Your task to perform on an android device: open chrome privacy settings Image 0: 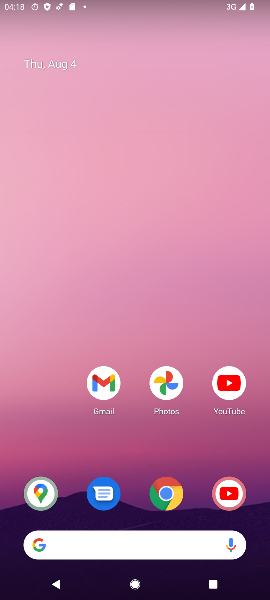
Step 0: click (165, 384)
Your task to perform on an android device: open chrome privacy settings Image 1: 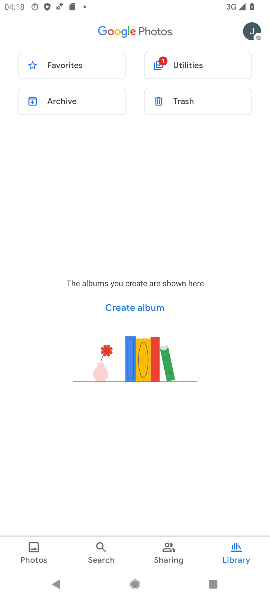
Step 1: press home button
Your task to perform on an android device: open chrome privacy settings Image 2: 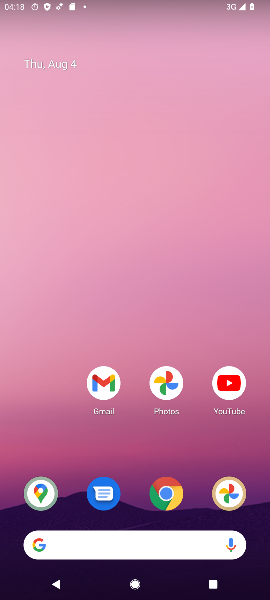
Step 2: click (161, 504)
Your task to perform on an android device: open chrome privacy settings Image 3: 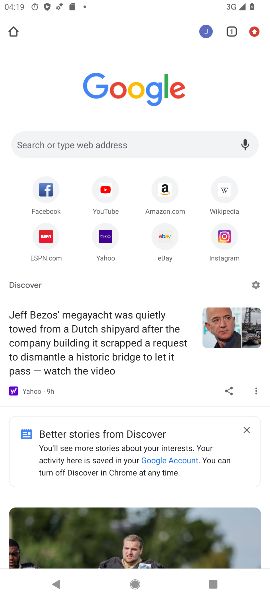
Step 3: click (255, 34)
Your task to perform on an android device: open chrome privacy settings Image 4: 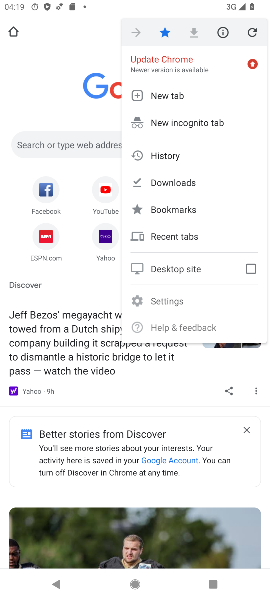
Step 4: click (242, 35)
Your task to perform on an android device: open chrome privacy settings Image 5: 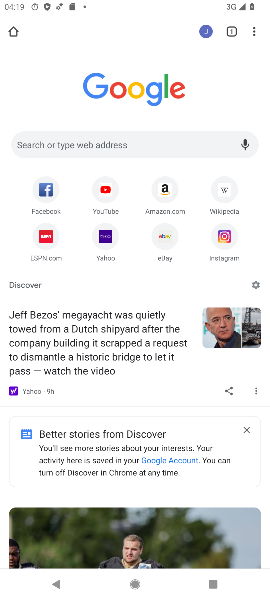
Step 5: task complete